Your task to perform on an android device: Empty the shopping cart on amazon. Add beats solo 3 to the cart on amazon, then select checkout. Image 0: 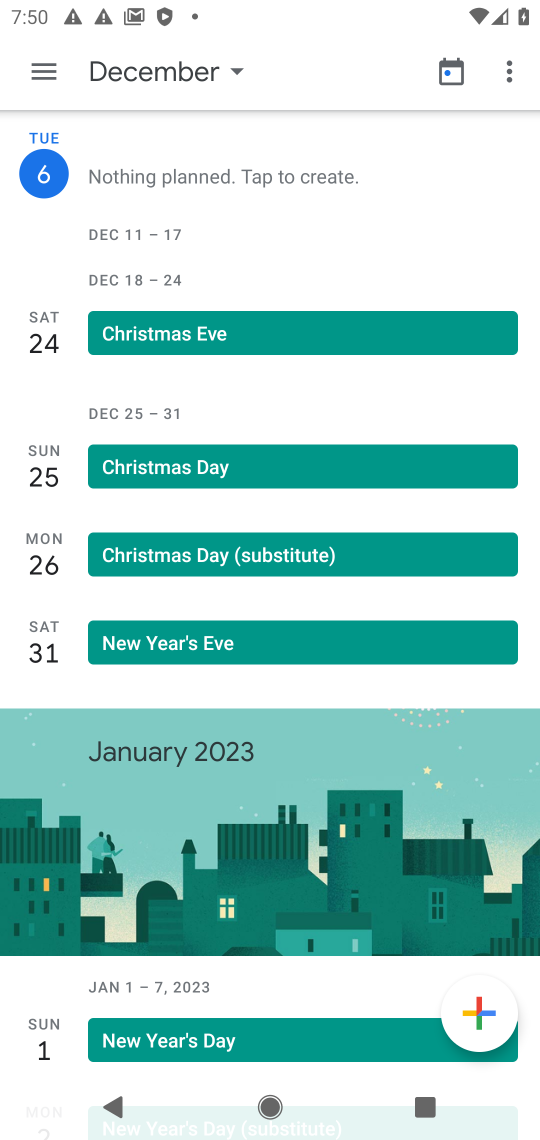
Step 0: press home button
Your task to perform on an android device: Empty the shopping cart on amazon. Add beats solo 3 to the cart on amazon, then select checkout. Image 1: 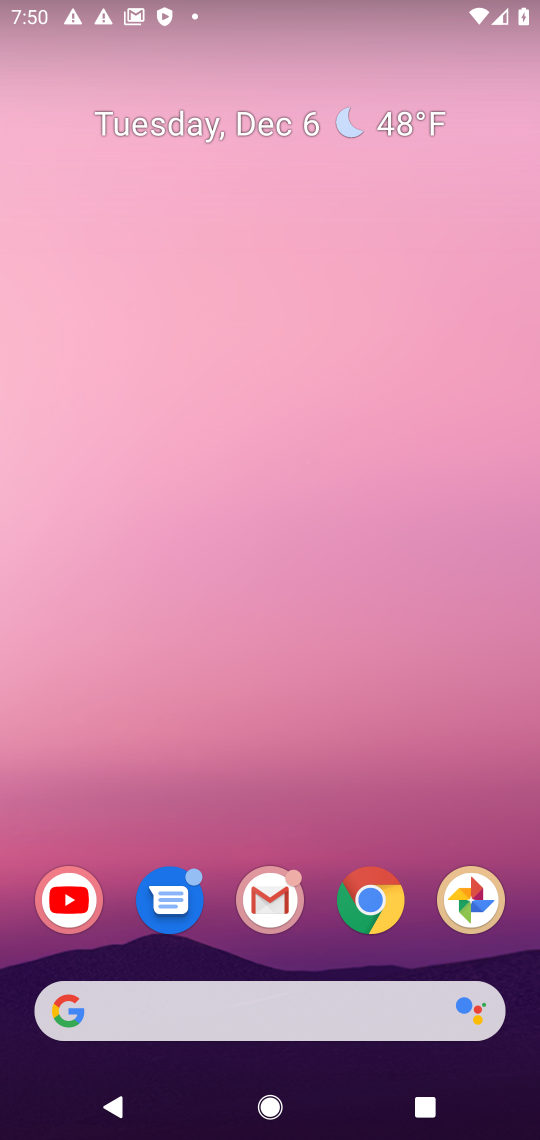
Step 1: drag from (193, 872) to (256, 425)
Your task to perform on an android device: Empty the shopping cart on amazon. Add beats solo 3 to the cart on amazon, then select checkout. Image 2: 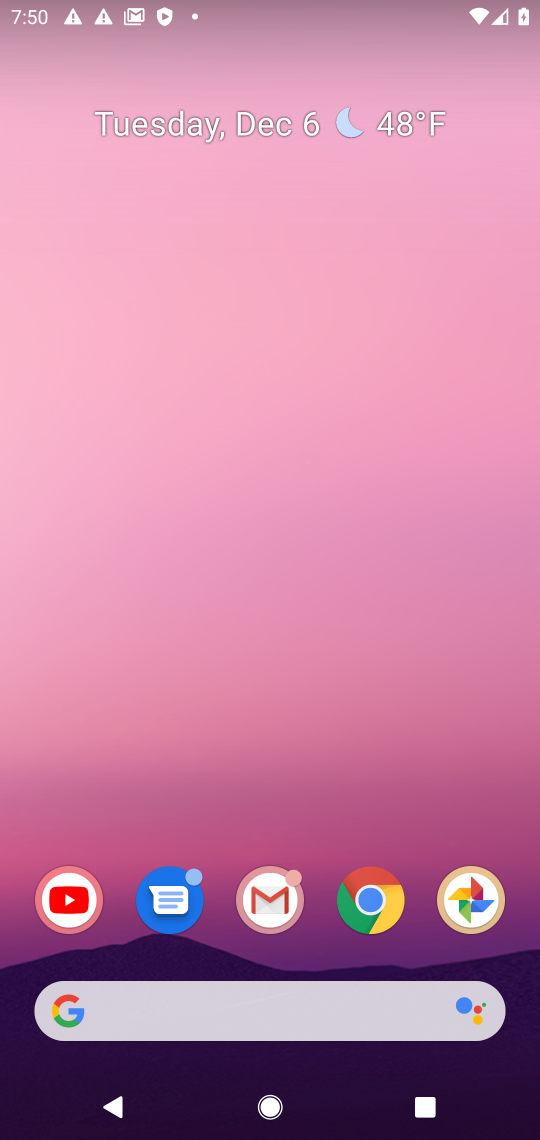
Step 2: drag from (289, 983) to (268, 250)
Your task to perform on an android device: Empty the shopping cart on amazon. Add beats solo 3 to the cart on amazon, then select checkout. Image 3: 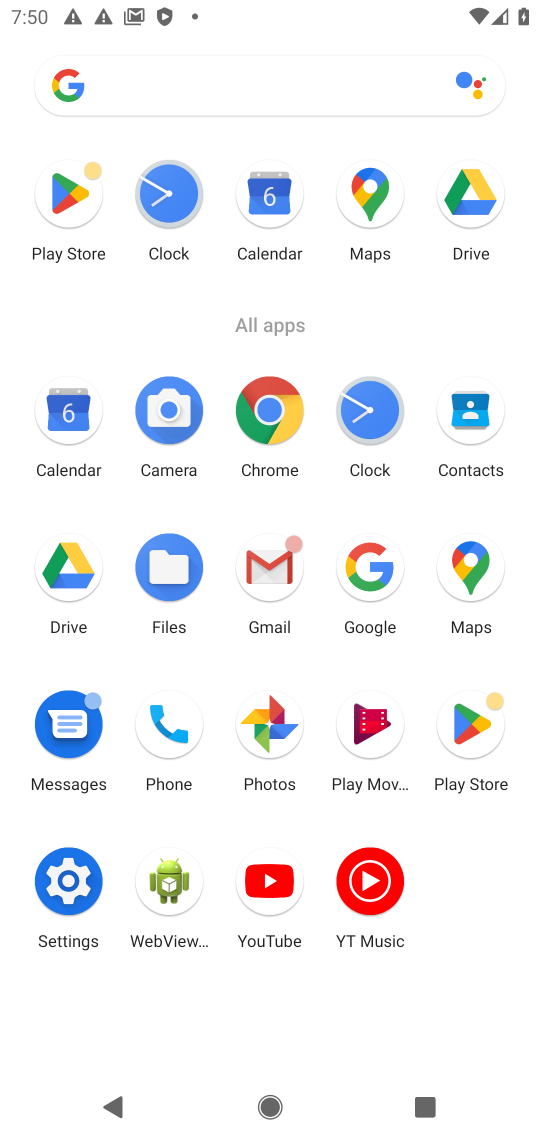
Step 3: click (357, 562)
Your task to perform on an android device: Empty the shopping cart on amazon. Add beats solo 3 to the cart on amazon, then select checkout. Image 4: 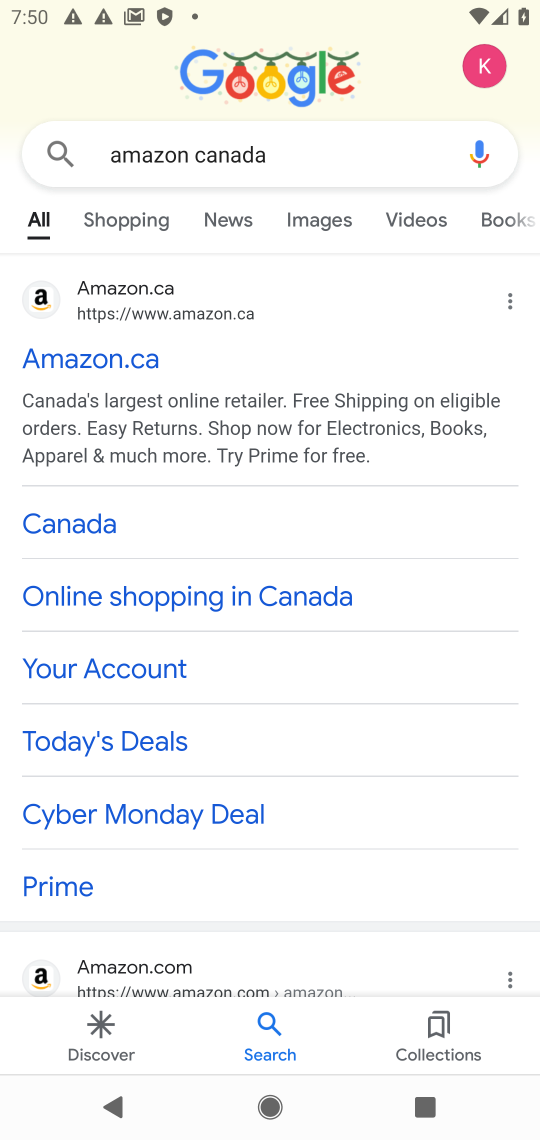
Step 4: click (219, 160)
Your task to perform on an android device: Empty the shopping cart on amazon. Add beats solo 3 to the cart on amazon, then select checkout. Image 5: 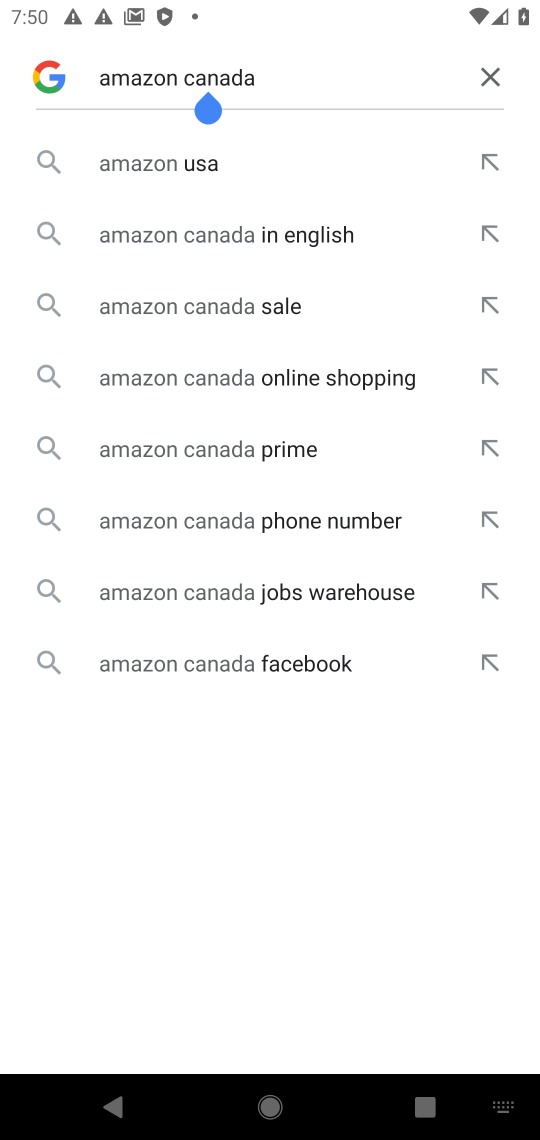
Step 5: click (486, 80)
Your task to perform on an android device: Empty the shopping cart on amazon. Add beats solo 3 to the cart on amazon, then select checkout. Image 6: 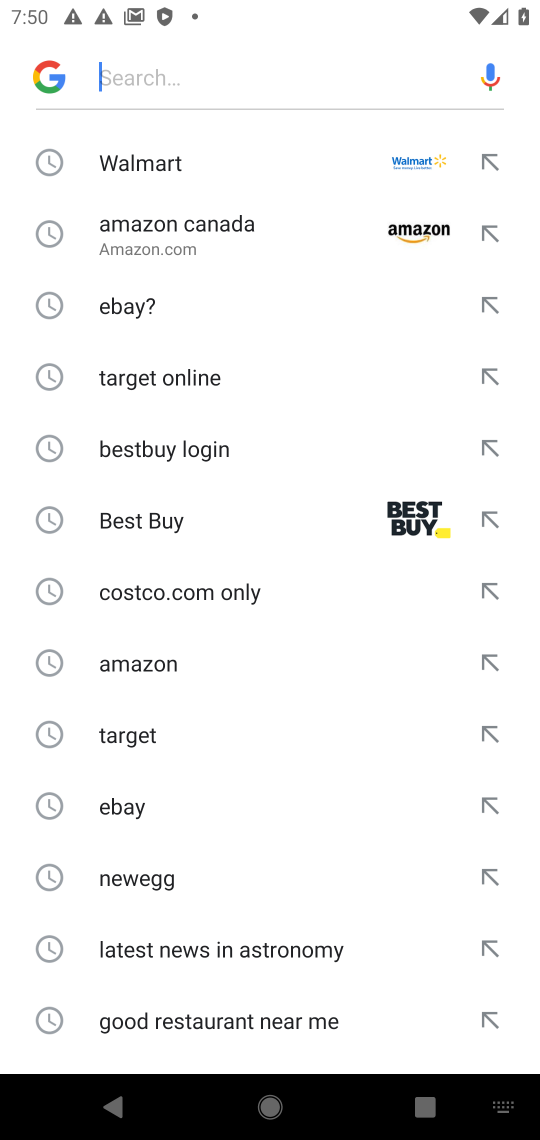
Step 6: click (408, 227)
Your task to perform on an android device: Empty the shopping cart on amazon. Add beats solo 3 to the cart on amazon, then select checkout. Image 7: 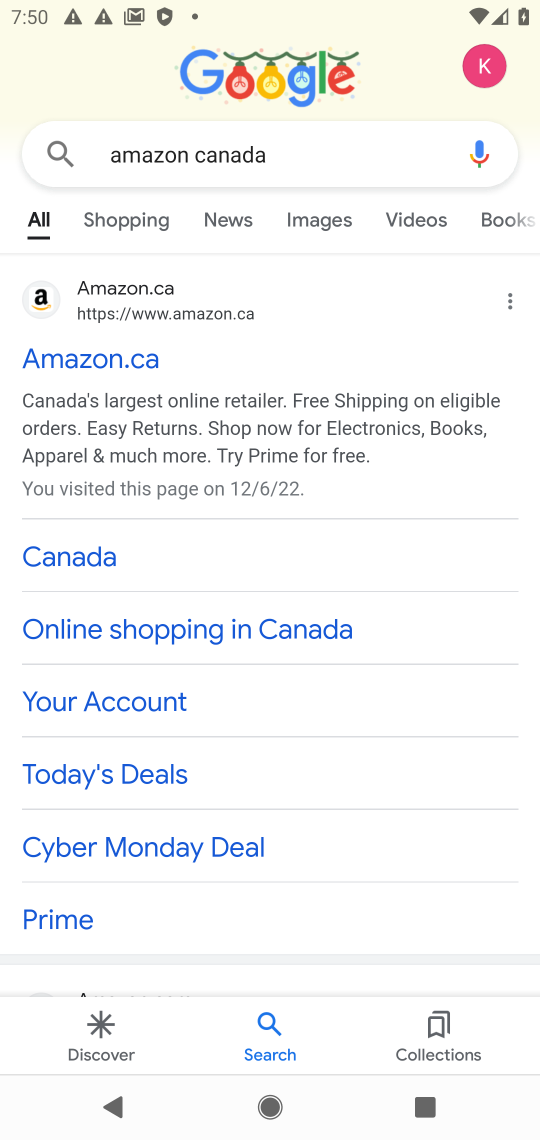
Step 7: click (69, 361)
Your task to perform on an android device: Empty the shopping cart on amazon. Add beats solo 3 to the cart on amazon, then select checkout. Image 8: 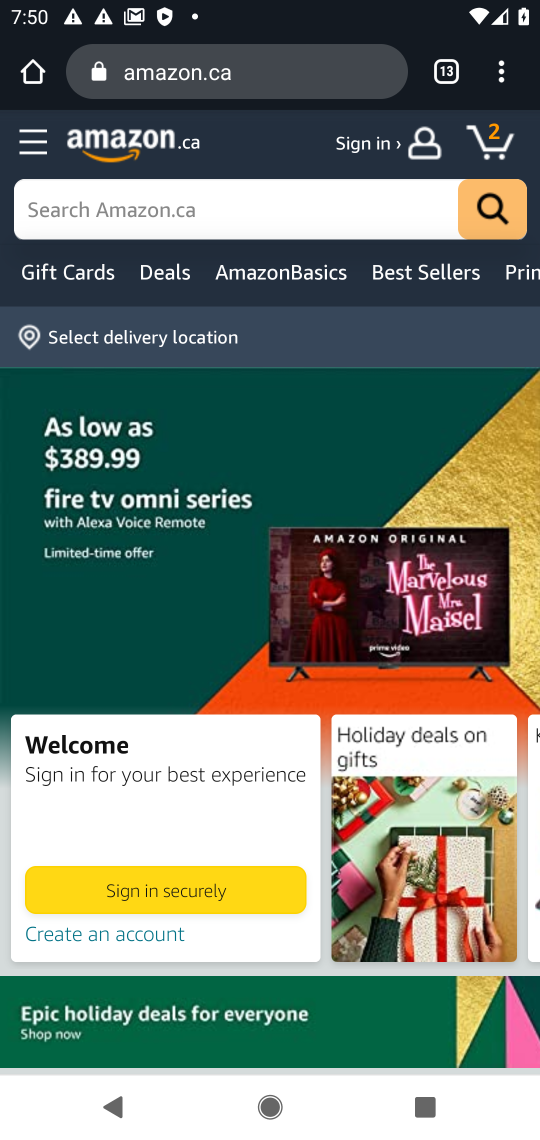
Step 8: click (284, 229)
Your task to perform on an android device: Empty the shopping cart on amazon. Add beats solo 3 to the cart on amazon, then select checkout. Image 9: 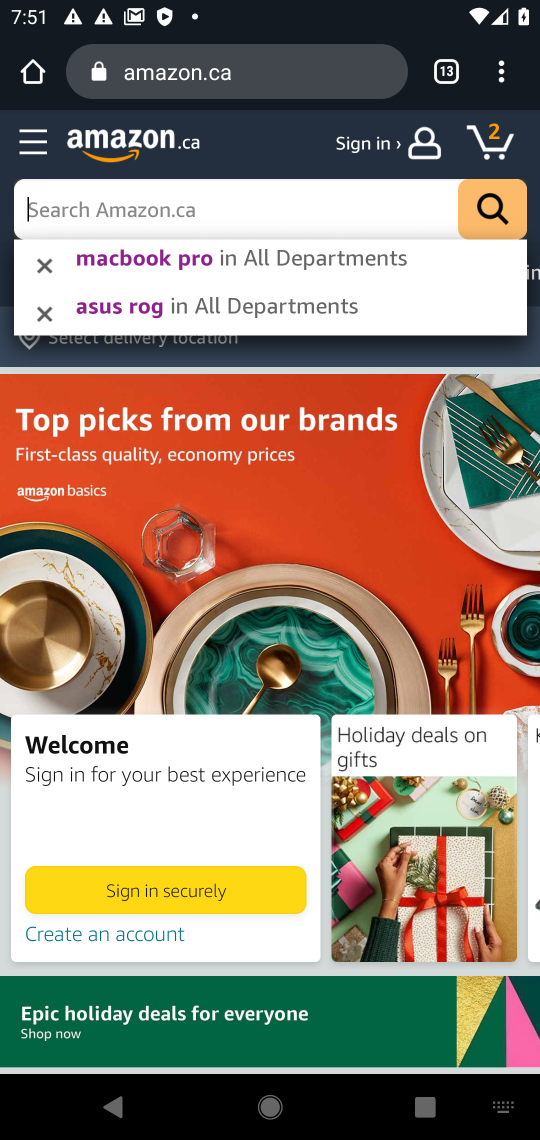
Step 9: click (115, 213)
Your task to perform on an android device: Empty the shopping cart on amazon. Add beats solo 3 to the cart on amazon, then select checkout. Image 10: 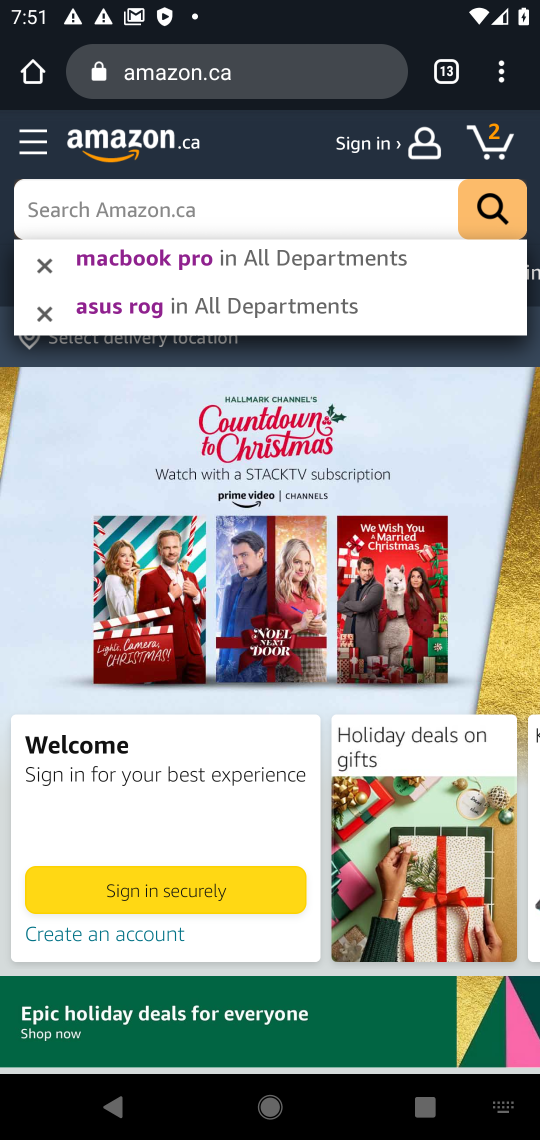
Step 10: type "beats solo 3"
Your task to perform on an android device: Empty the shopping cart on amazon. Add beats solo 3 to the cart on amazon, then select checkout. Image 11: 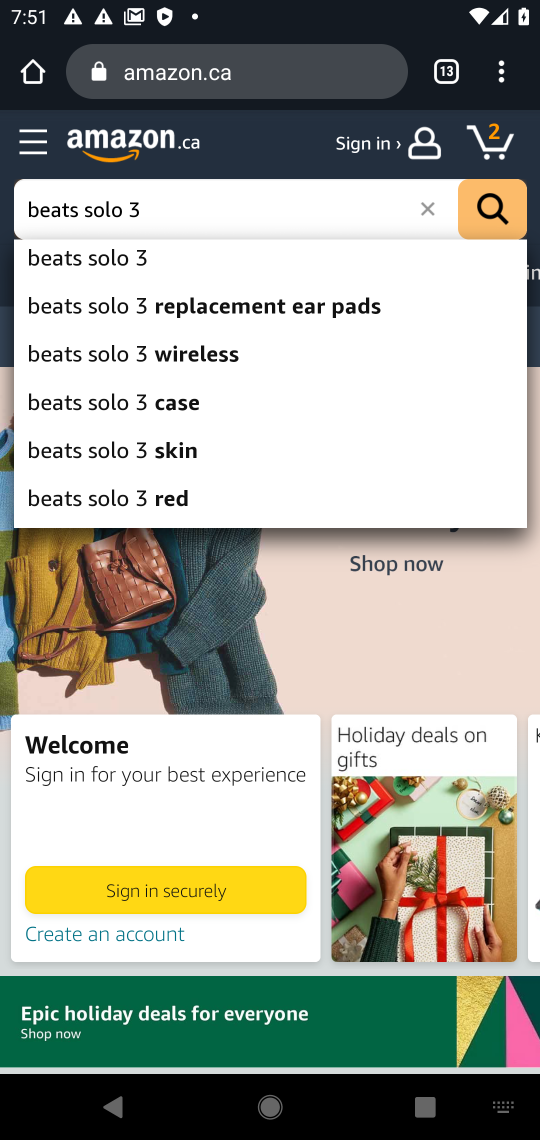
Step 11: click (95, 263)
Your task to perform on an android device: Empty the shopping cart on amazon. Add beats solo 3 to the cart on amazon, then select checkout. Image 12: 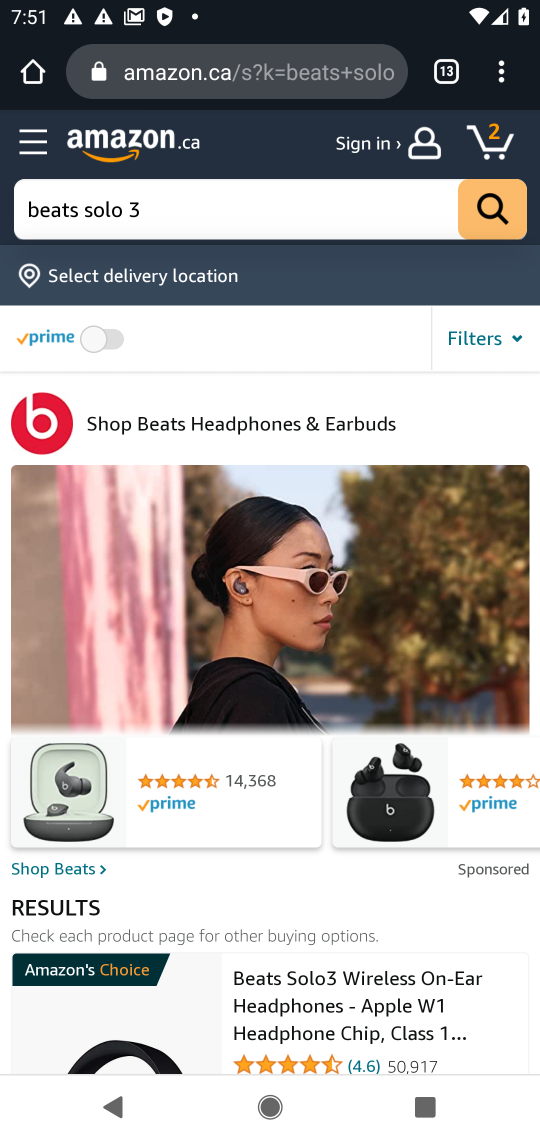
Step 12: drag from (292, 939) to (292, 480)
Your task to perform on an android device: Empty the shopping cart on amazon. Add beats solo 3 to the cart on amazon, then select checkout. Image 13: 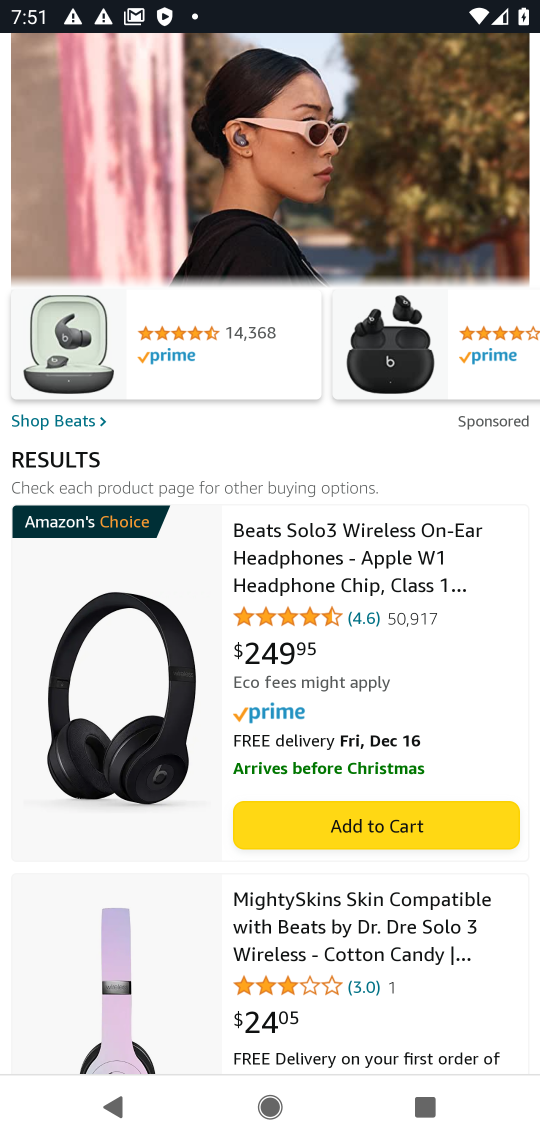
Step 13: click (339, 813)
Your task to perform on an android device: Empty the shopping cart on amazon. Add beats solo 3 to the cart on amazon, then select checkout. Image 14: 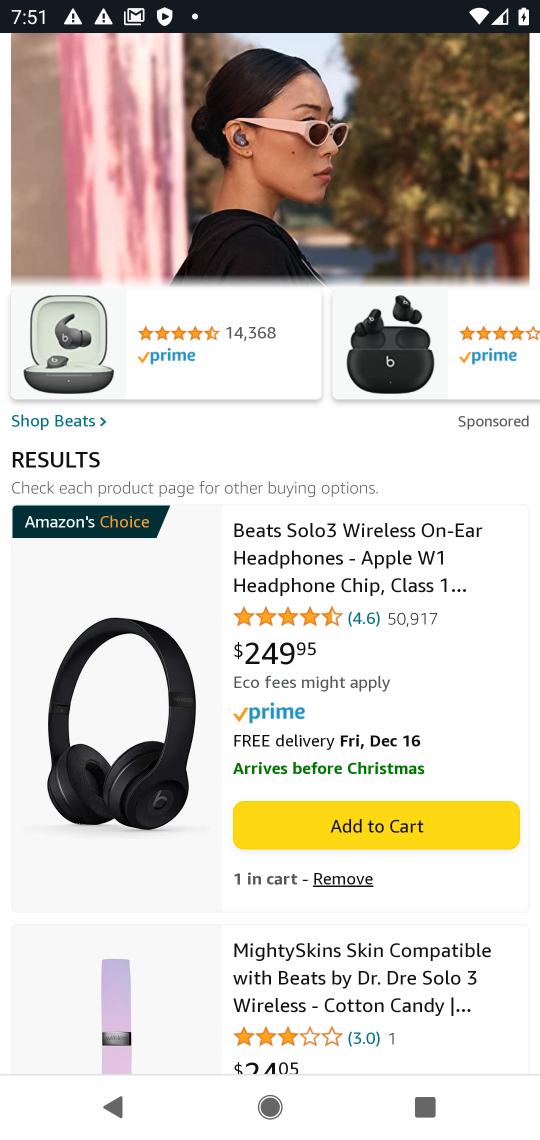
Step 14: drag from (280, 181) to (280, 588)
Your task to perform on an android device: Empty the shopping cart on amazon. Add beats solo 3 to the cart on amazon, then select checkout. Image 15: 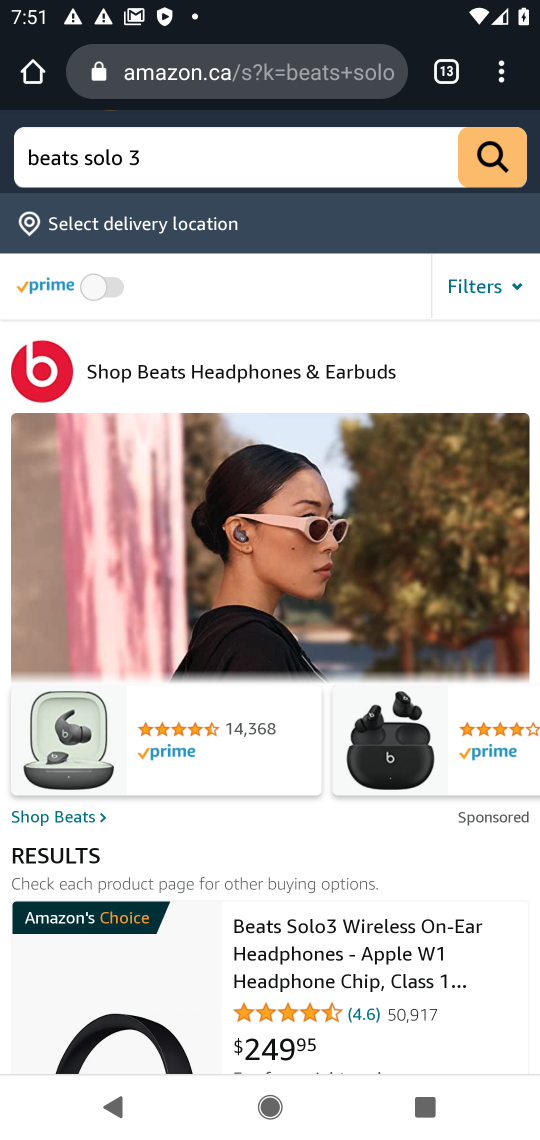
Step 15: drag from (299, 1013) to (295, 355)
Your task to perform on an android device: Empty the shopping cart on amazon. Add beats solo 3 to the cart on amazon, then select checkout. Image 16: 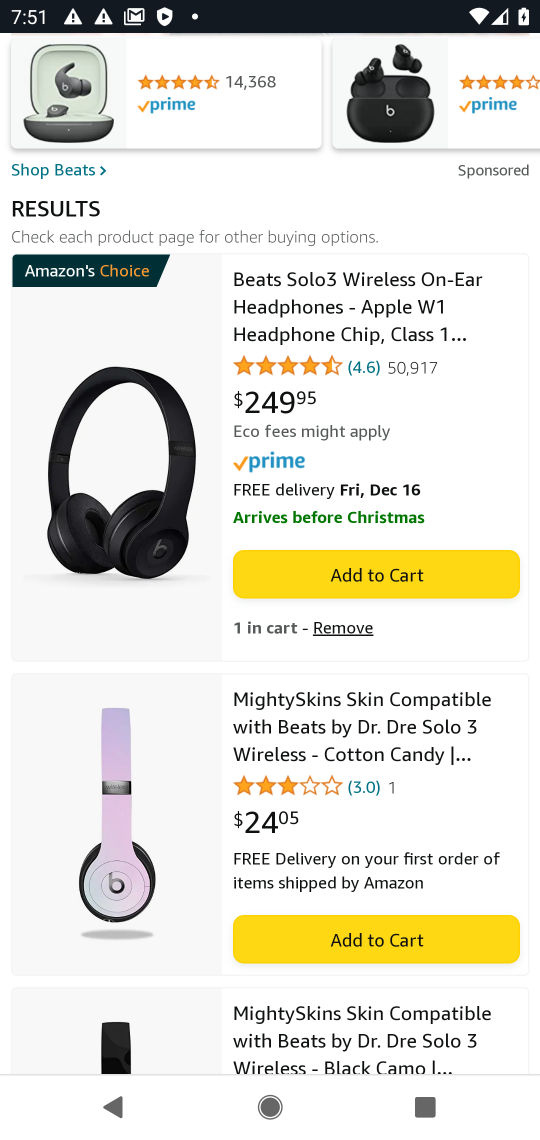
Step 16: click (391, 574)
Your task to perform on an android device: Empty the shopping cart on amazon. Add beats solo 3 to the cart on amazon, then select checkout. Image 17: 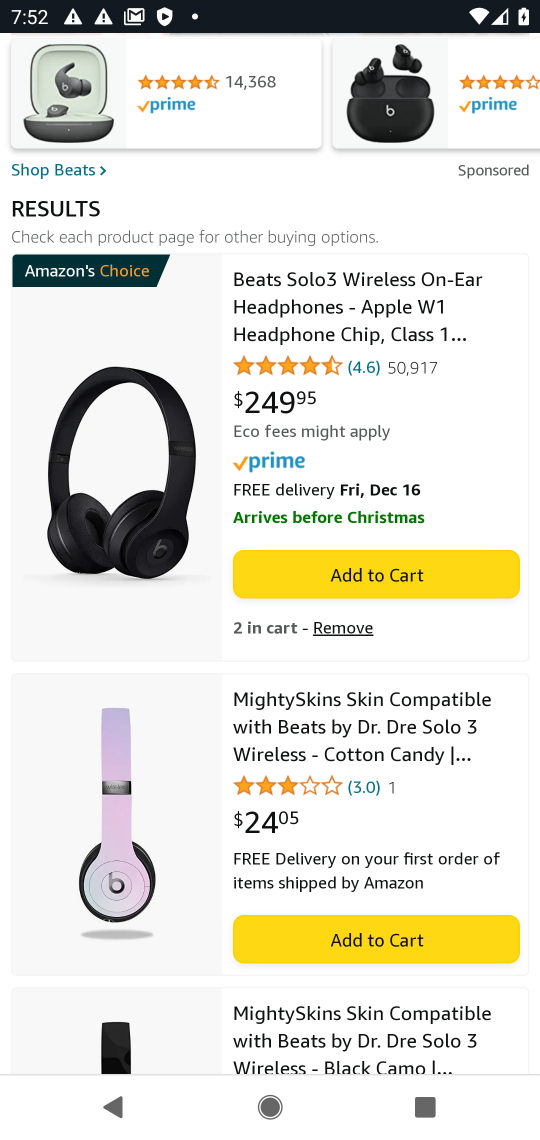
Step 17: click (383, 570)
Your task to perform on an android device: Empty the shopping cart on amazon. Add beats solo 3 to the cart on amazon, then select checkout. Image 18: 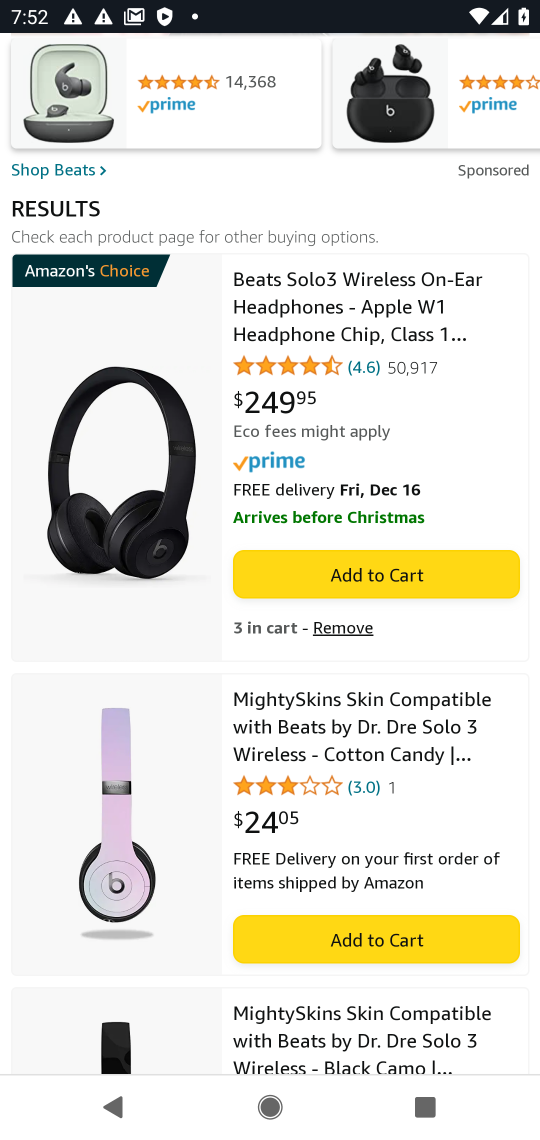
Step 18: drag from (401, 288) to (362, 809)
Your task to perform on an android device: Empty the shopping cart on amazon. Add beats solo 3 to the cart on amazon, then select checkout. Image 19: 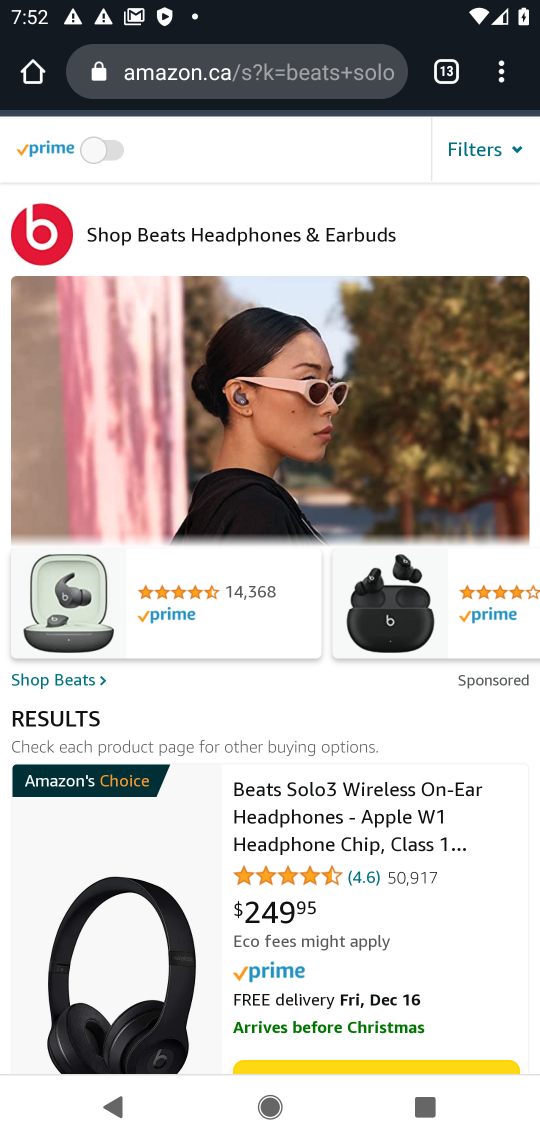
Step 19: drag from (423, 282) to (392, 917)
Your task to perform on an android device: Empty the shopping cart on amazon. Add beats solo 3 to the cart on amazon, then select checkout. Image 20: 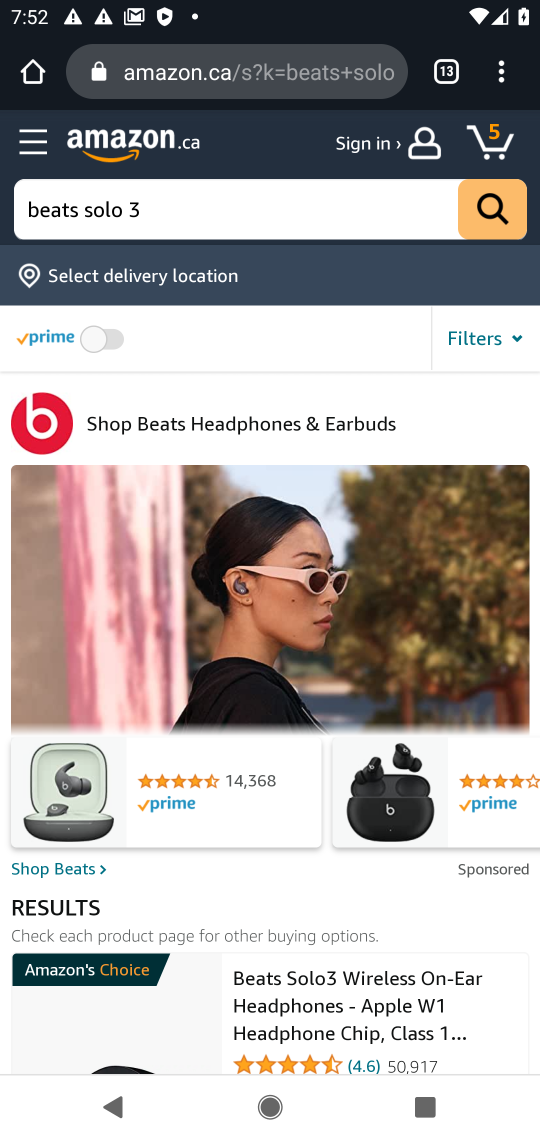
Step 20: click (491, 134)
Your task to perform on an android device: Empty the shopping cart on amazon. Add beats solo 3 to the cart on amazon, then select checkout. Image 21: 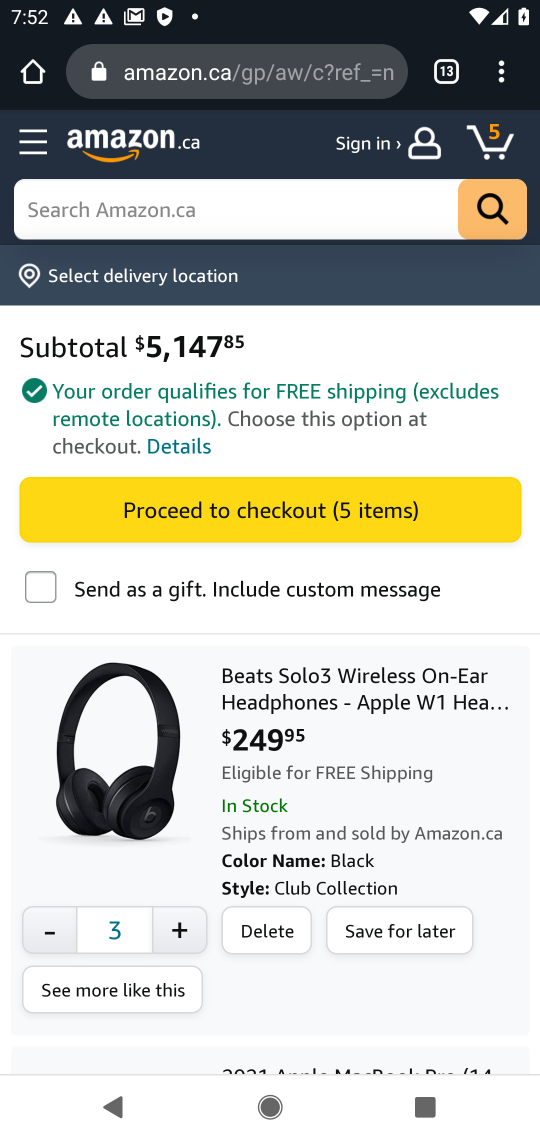
Step 21: click (218, 506)
Your task to perform on an android device: Empty the shopping cart on amazon. Add beats solo 3 to the cart on amazon, then select checkout. Image 22: 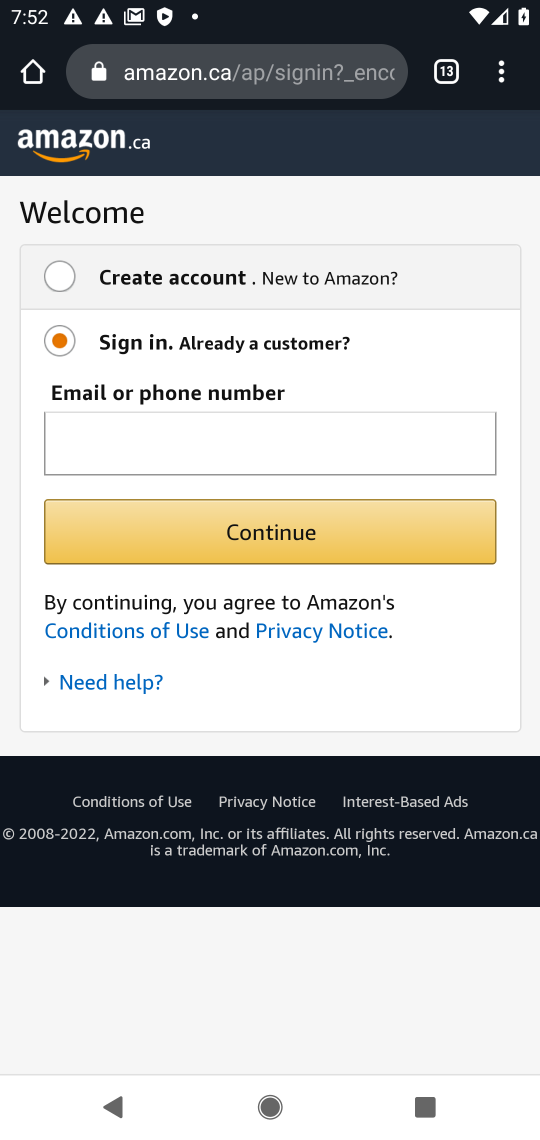
Step 22: task complete